Your task to perform on an android device: Open accessibility settings Image 0: 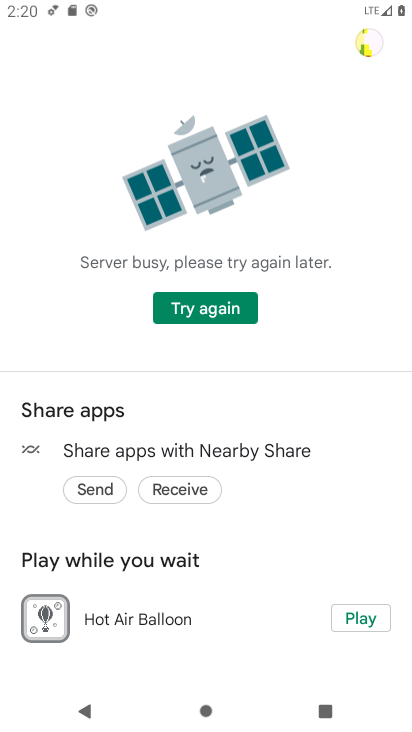
Step 0: press home button
Your task to perform on an android device: Open accessibility settings Image 1: 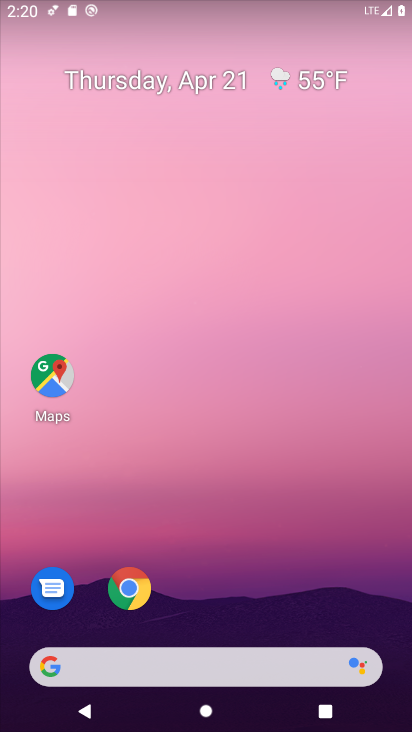
Step 1: drag from (259, 579) to (292, 72)
Your task to perform on an android device: Open accessibility settings Image 2: 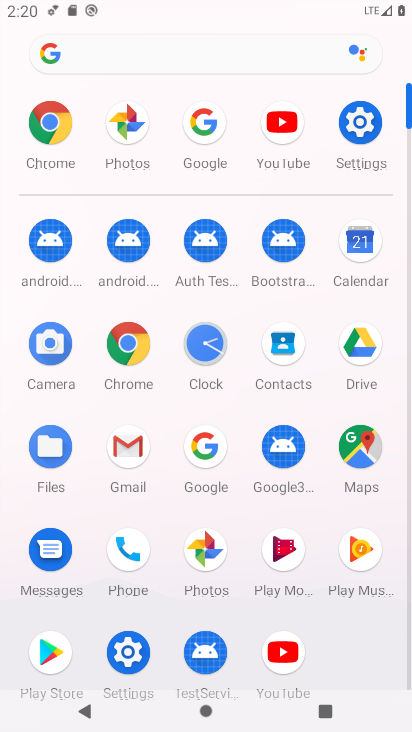
Step 2: click (357, 129)
Your task to perform on an android device: Open accessibility settings Image 3: 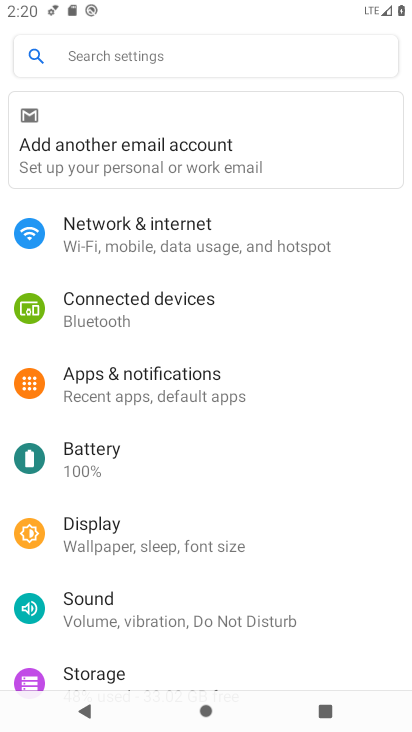
Step 3: drag from (283, 316) to (278, 267)
Your task to perform on an android device: Open accessibility settings Image 4: 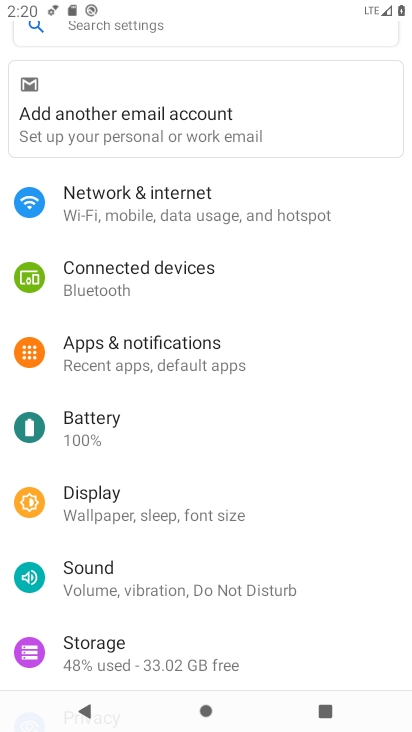
Step 4: drag from (276, 349) to (279, 286)
Your task to perform on an android device: Open accessibility settings Image 5: 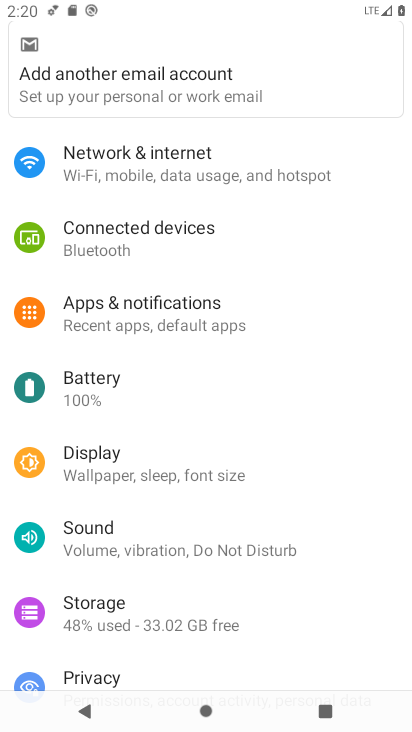
Step 5: drag from (241, 370) to (252, 321)
Your task to perform on an android device: Open accessibility settings Image 6: 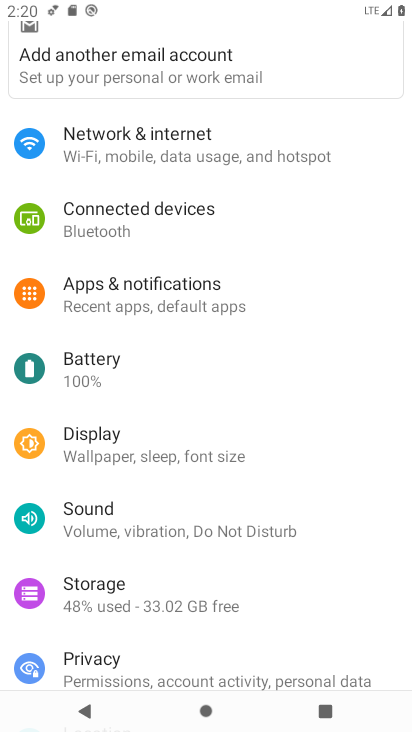
Step 6: drag from (255, 359) to (260, 316)
Your task to perform on an android device: Open accessibility settings Image 7: 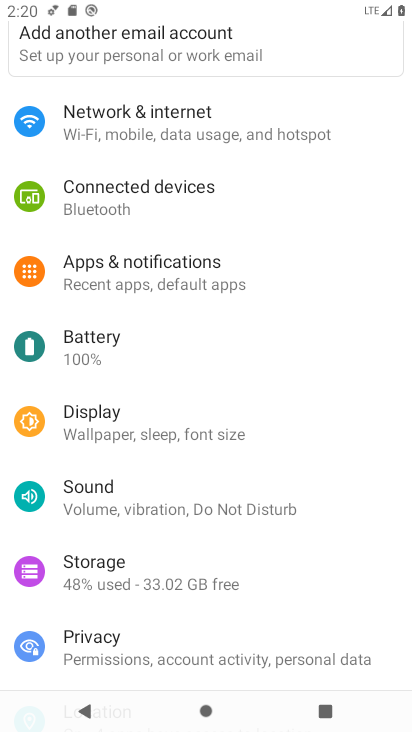
Step 7: drag from (285, 421) to (288, 357)
Your task to perform on an android device: Open accessibility settings Image 8: 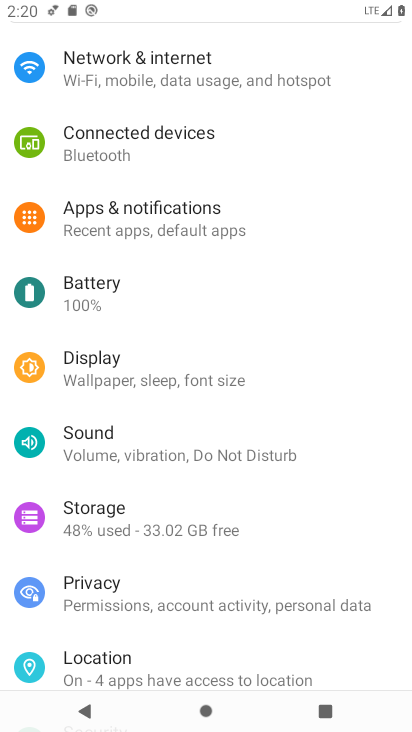
Step 8: drag from (265, 455) to (294, 379)
Your task to perform on an android device: Open accessibility settings Image 9: 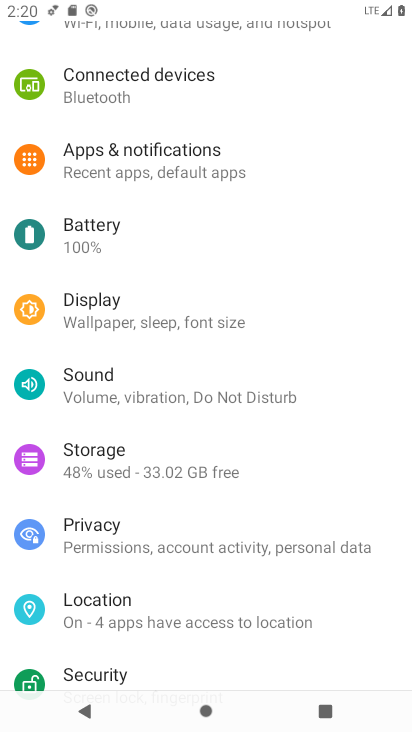
Step 9: drag from (266, 466) to (284, 361)
Your task to perform on an android device: Open accessibility settings Image 10: 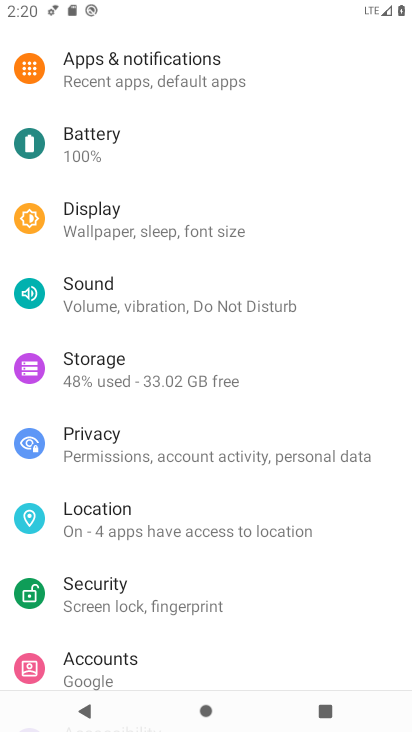
Step 10: drag from (250, 453) to (247, 371)
Your task to perform on an android device: Open accessibility settings Image 11: 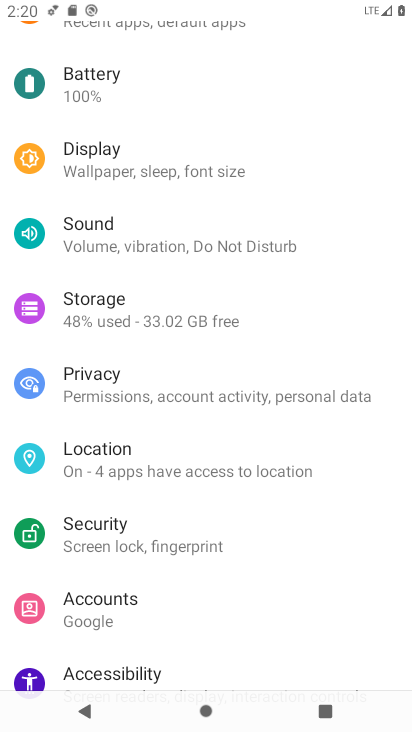
Step 11: drag from (233, 557) to (230, 476)
Your task to perform on an android device: Open accessibility settings Image 12: 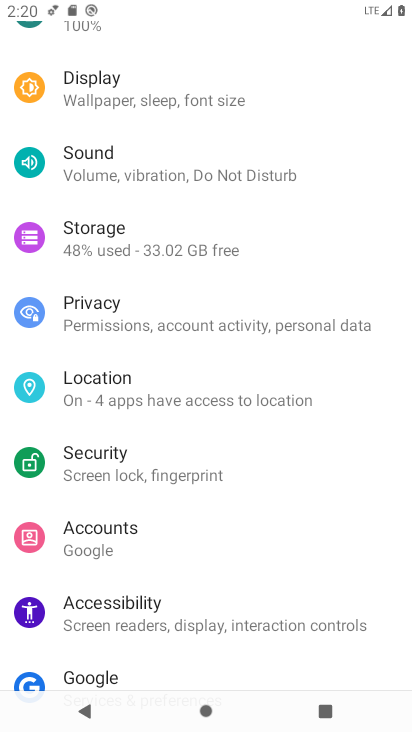
Step 12: click (178, 597)
Your task to perform on an android device: Open accessibility settings Image 13: 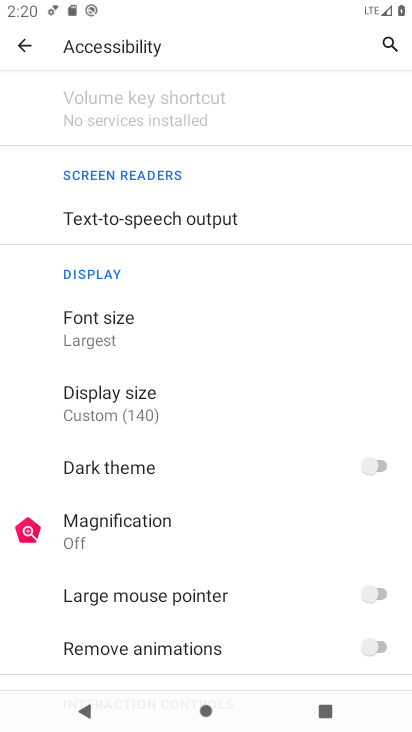
Step 13: task complete